Your task to perform on an android device: Open eBay Image 0: 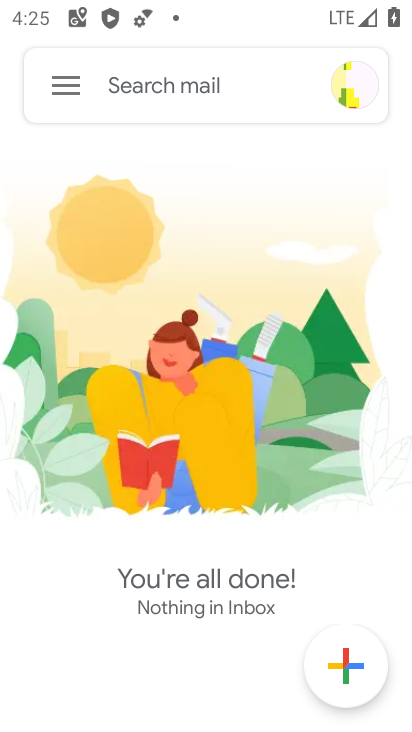
Step 0: press back button
Your task to perform on an android device: Open eBay Image 1: 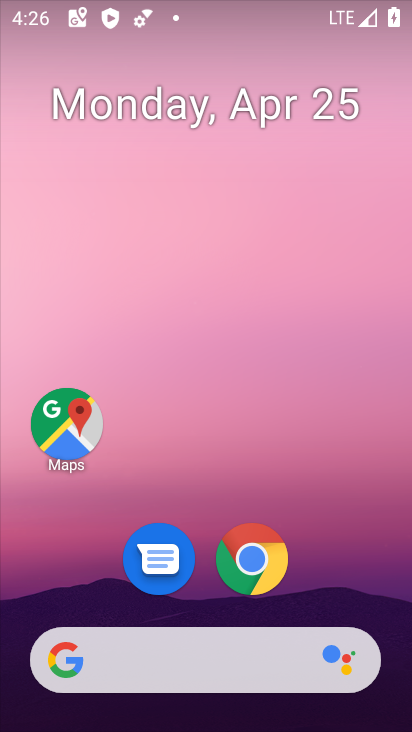
Step 1: click (252, 556)
Your task to perform on an android device: Open eBay Image 2: 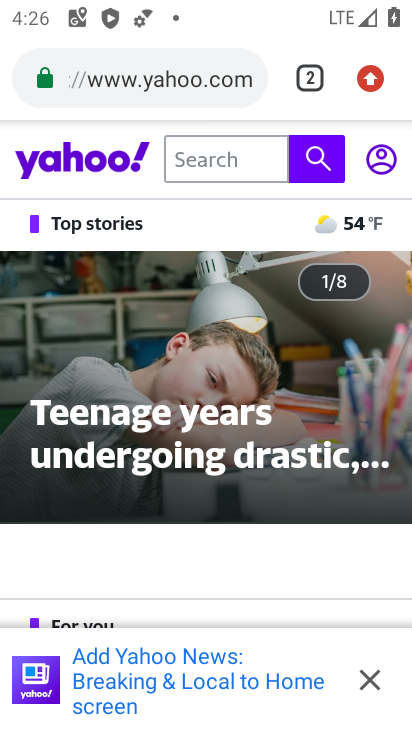
Step 2: click (230, 74)
Your task to perform on an android device: Open eBay Image 3: 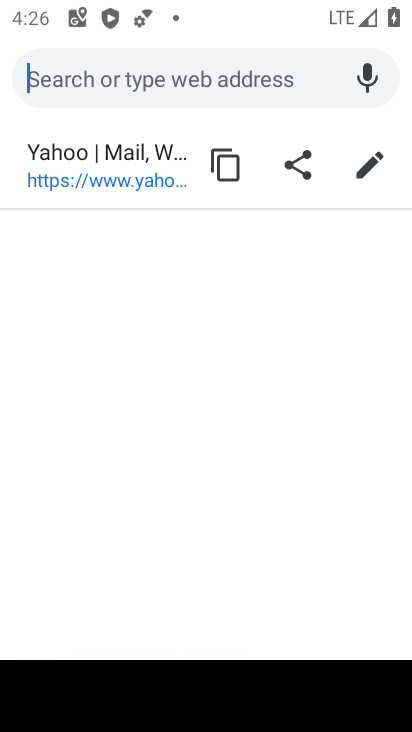
Step 3: click (230, 74)
Your task to perform on an android device: Open eBay Image 4: 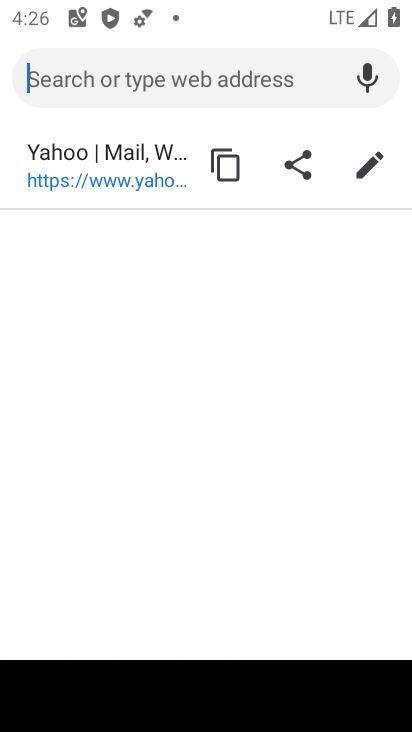
Step 4: type "eBay"
Your task to perform on an android device: Open eBay Image 5: 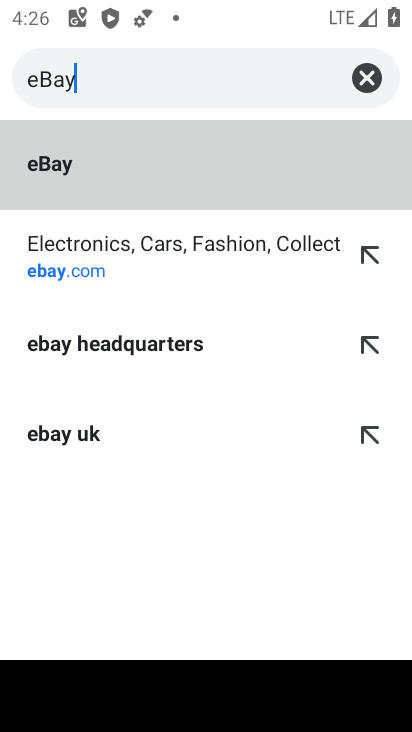
Step 5: type ""
Your task to perform on an android device: Open eBay Image 6: 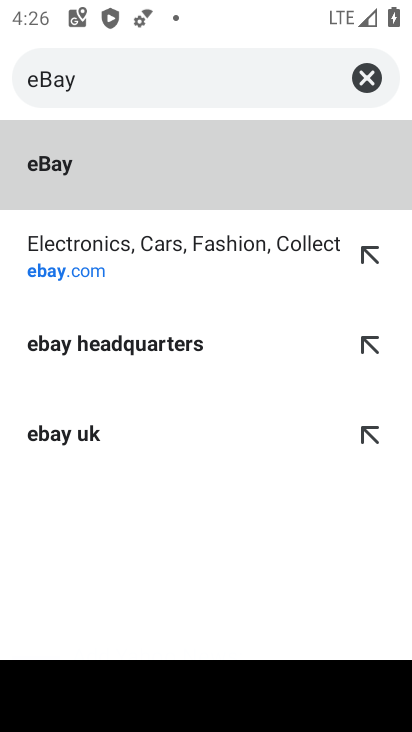
Step 6: click (63, 166)
Your task to perform on an android device: Open eBay Image 7: 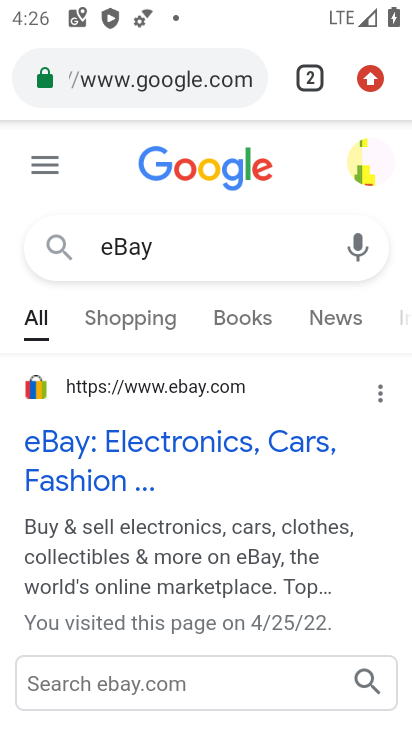
Step 7: click (238, 449)
Your task to perform on an android device: Open eBay Image 8: 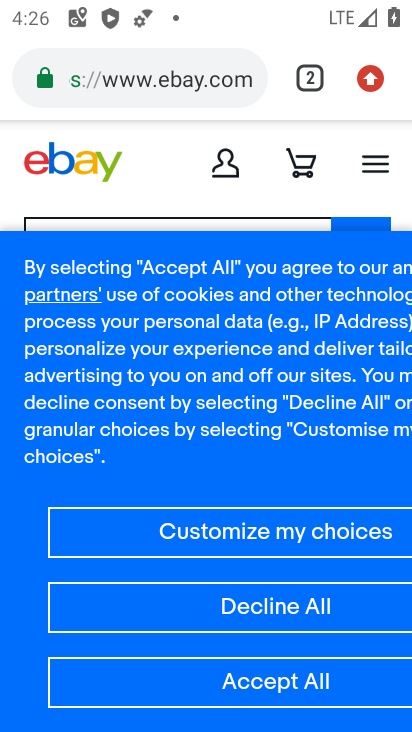
Step 8: task complete